Your task to perform on an android device: Clear the cart on amazon. Image 0: 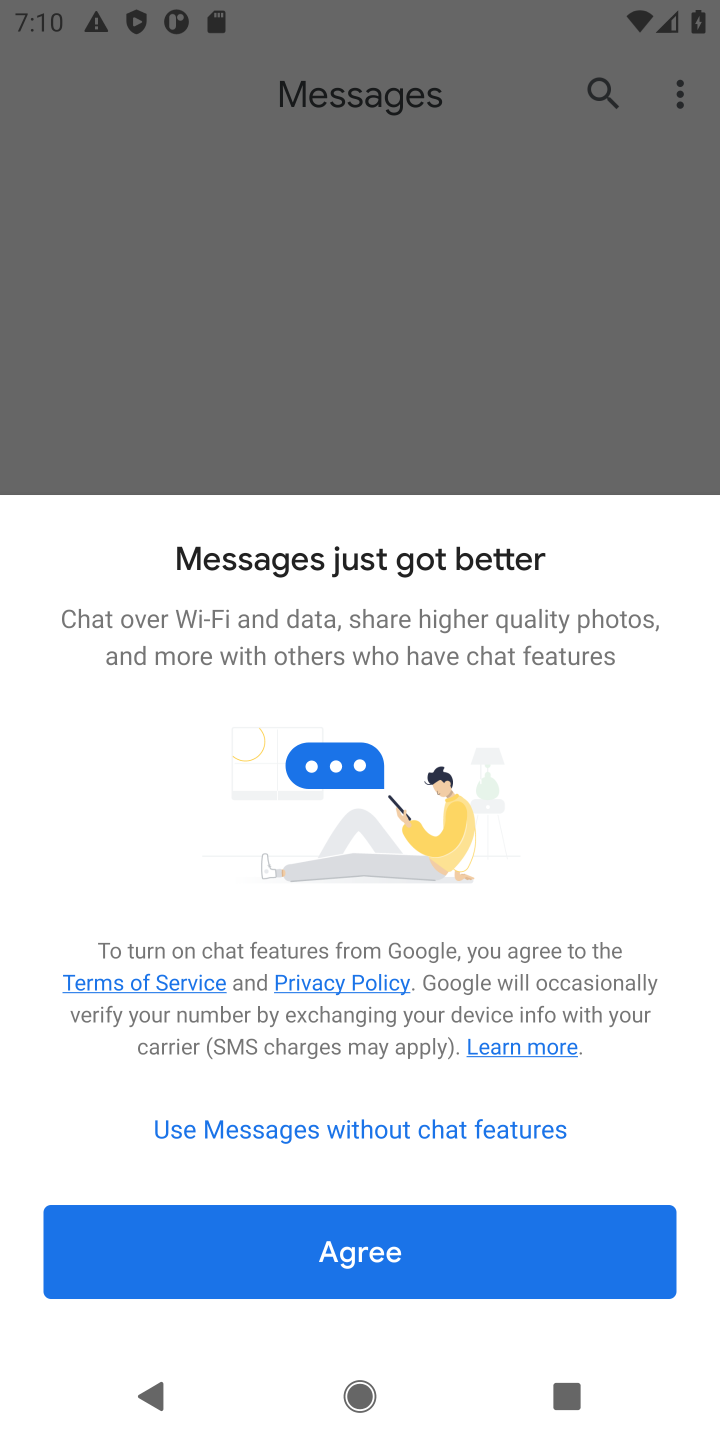
Step 0: press home button
Your task to perform on an android device: Clear the cart on amazon. Image 1: 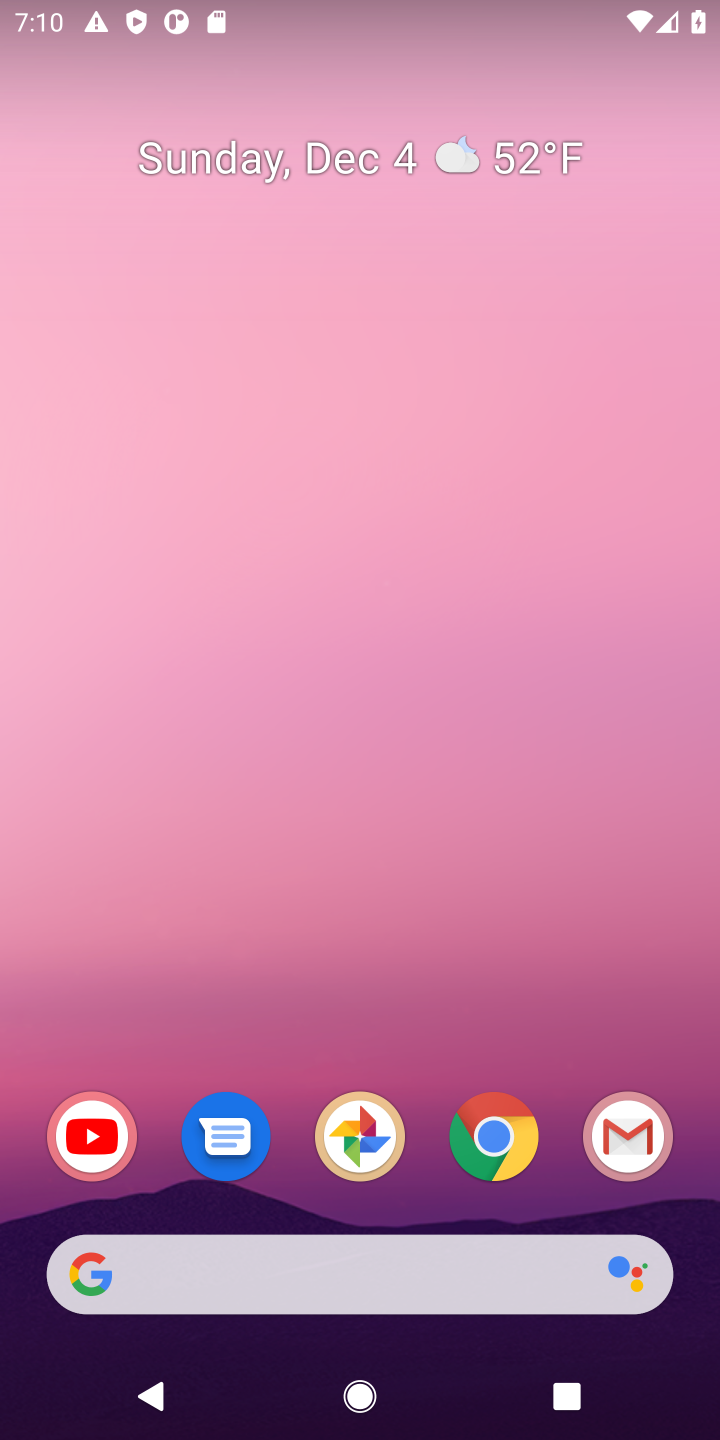
Step 1: click (492, 1143)
Your task to perform on an android device: Clear the cart on amazon. Image 2: 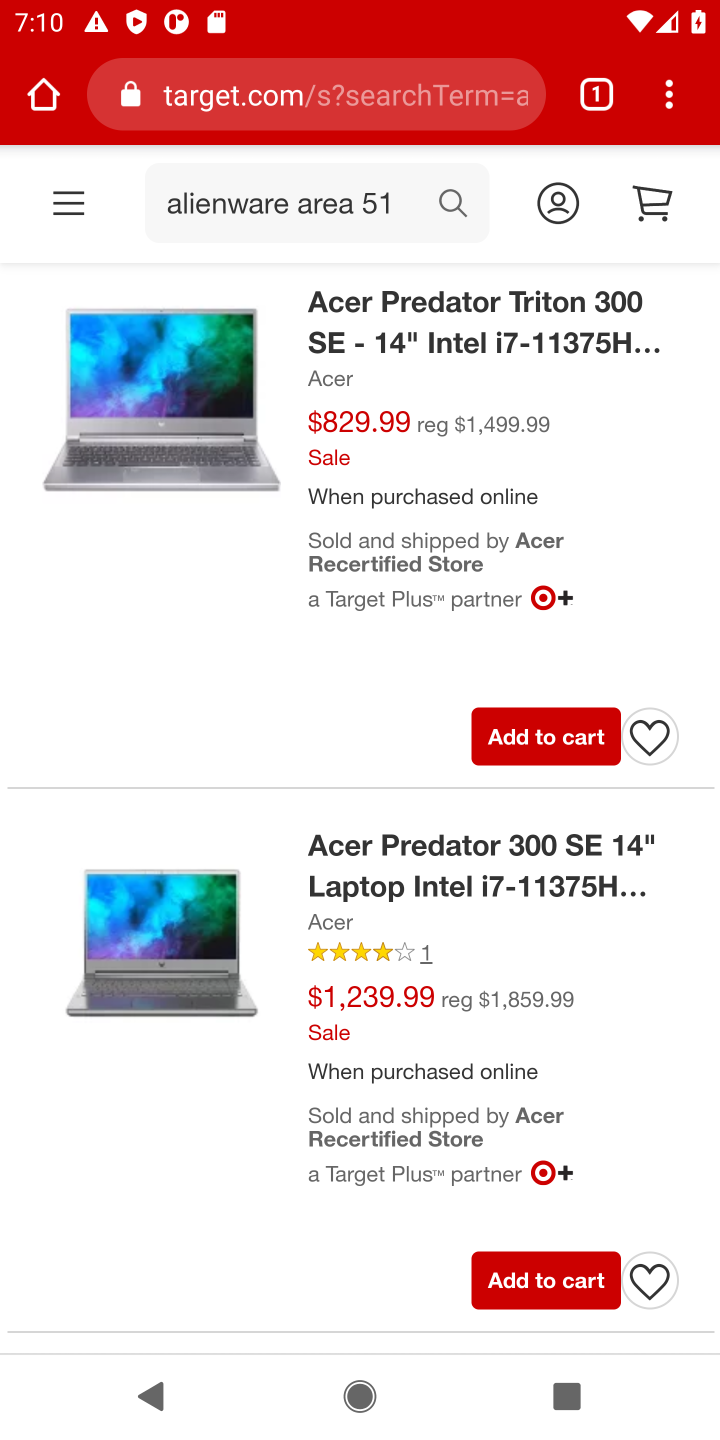
Step 2: click (247, 97)
Your task to perform on an android device: Clear the cart on amazon. Image 3: 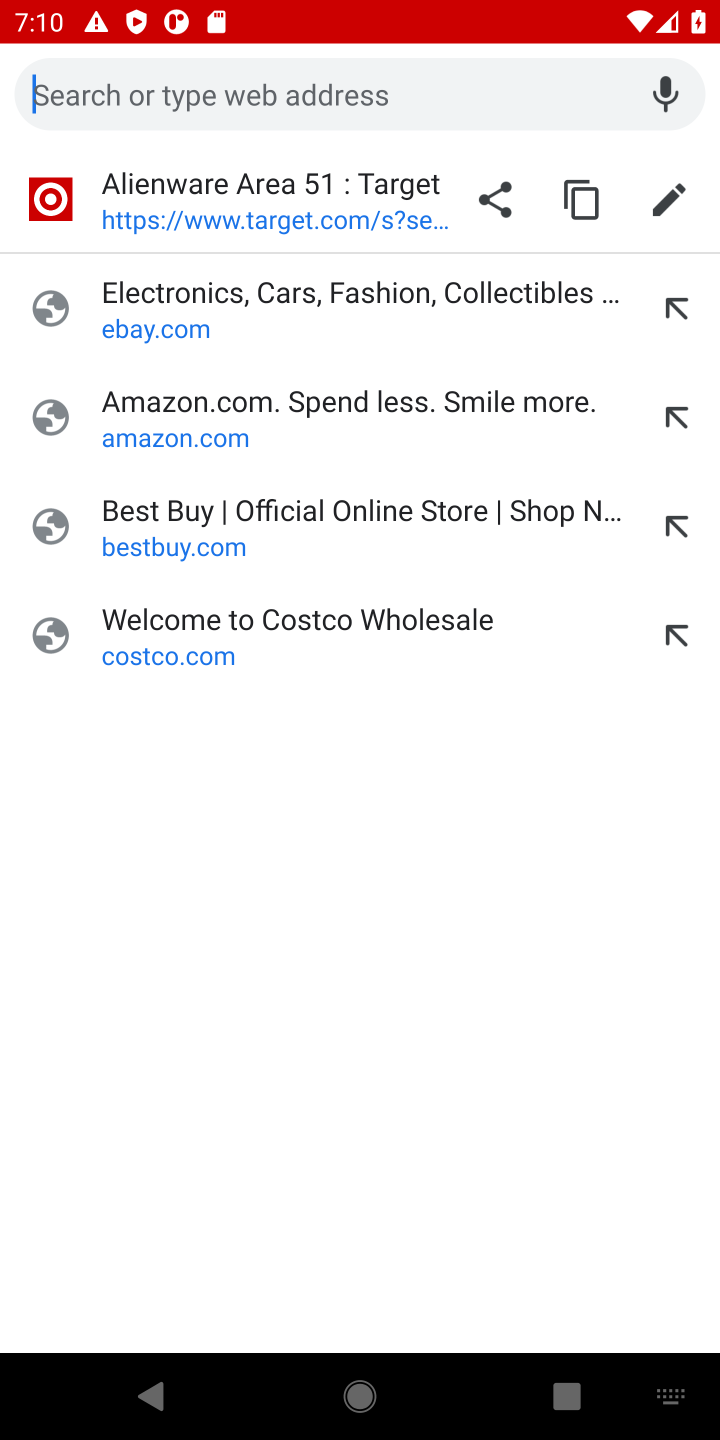
Step 3: click (122, 431)
Your task to perform on an android device: Clear the cart on amazon. Image 4: 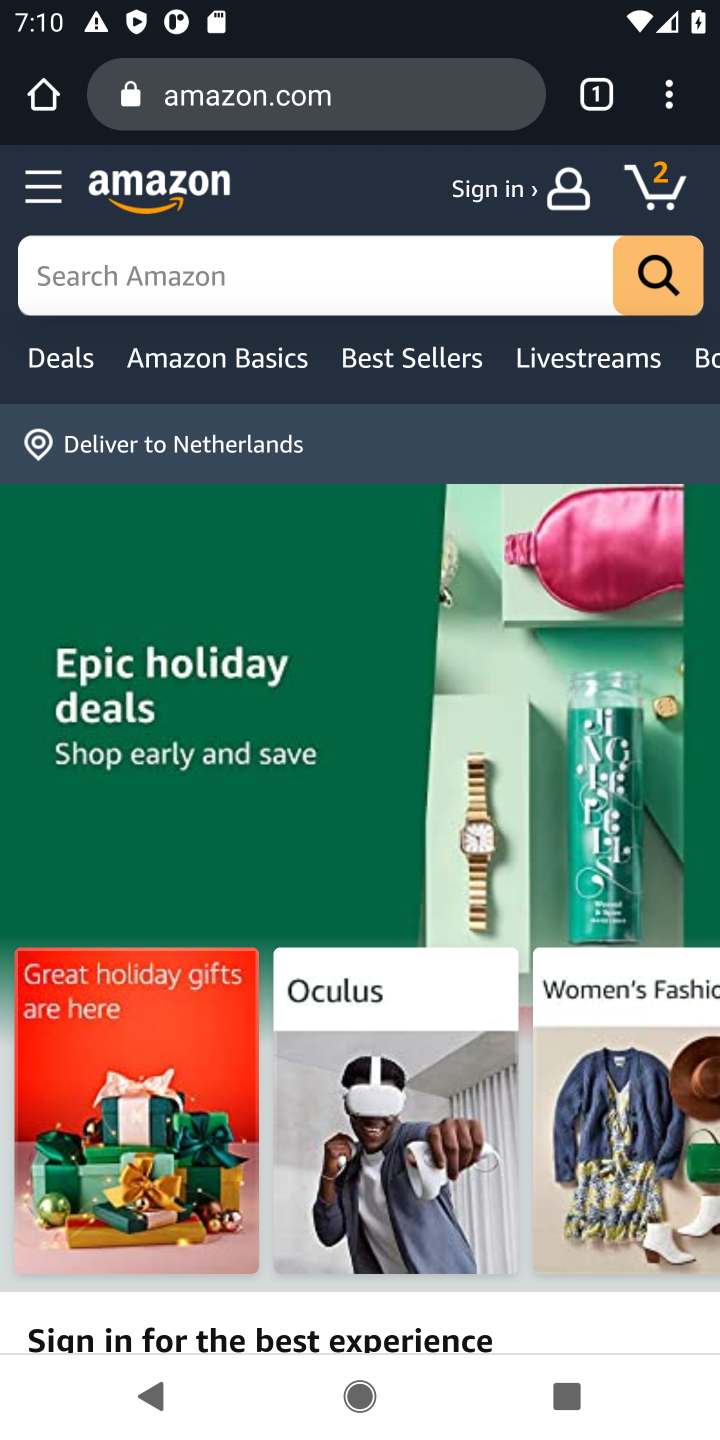
Step 4: click (659, 180)
Your task to perform on an android device: Clear the cart on amazon. Image 5: 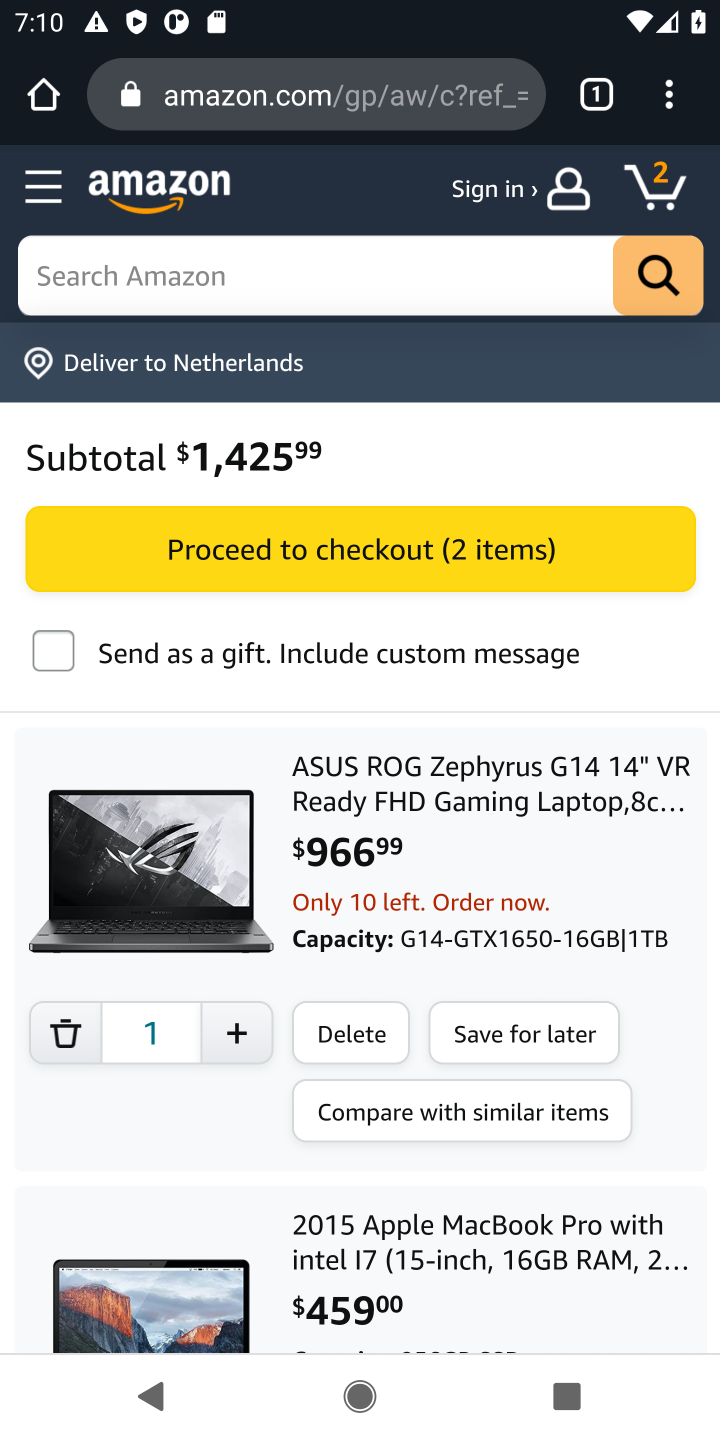
Step 5: click (349, 1037)
Your task to perform on an android device: Clear the cart on amazon. Image 6: 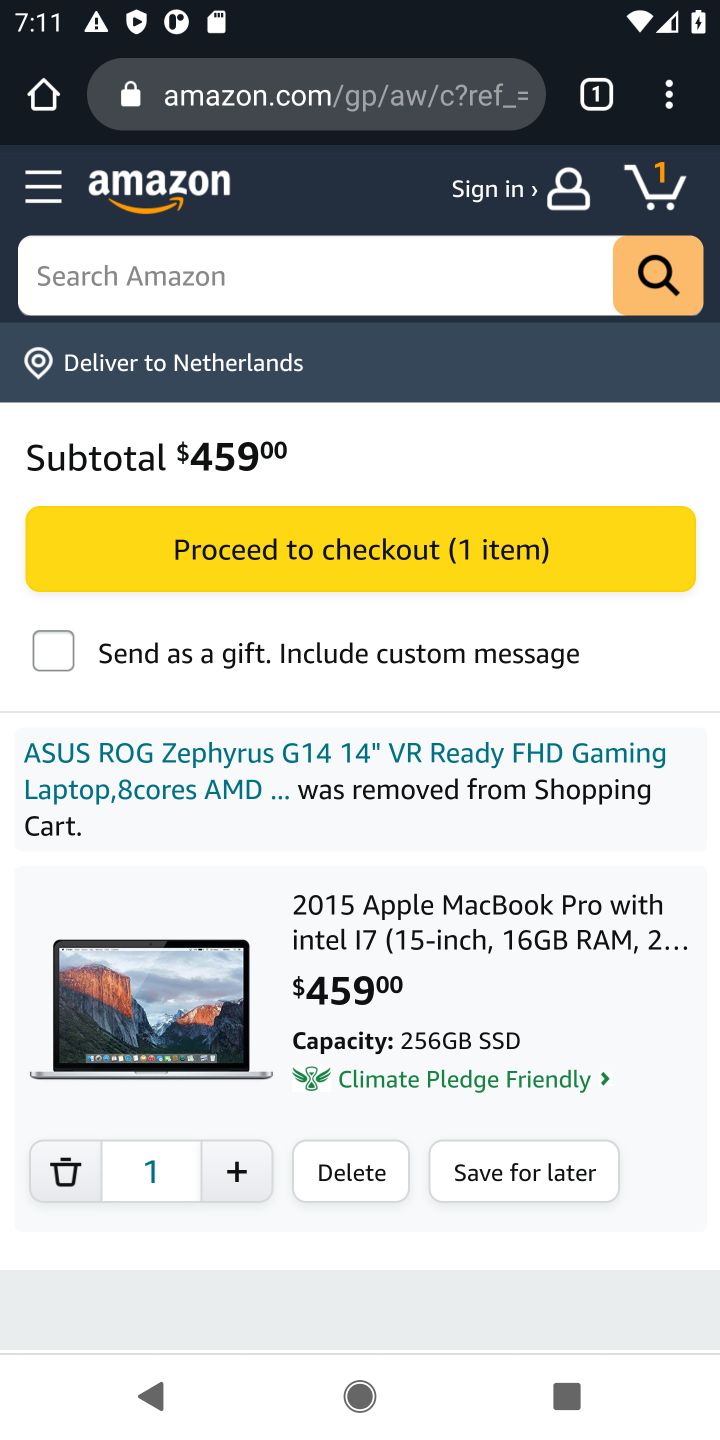
Step 6: click (357, 1161)
Your task to perform on an android device: Clear the cart on amazon. Image 7: 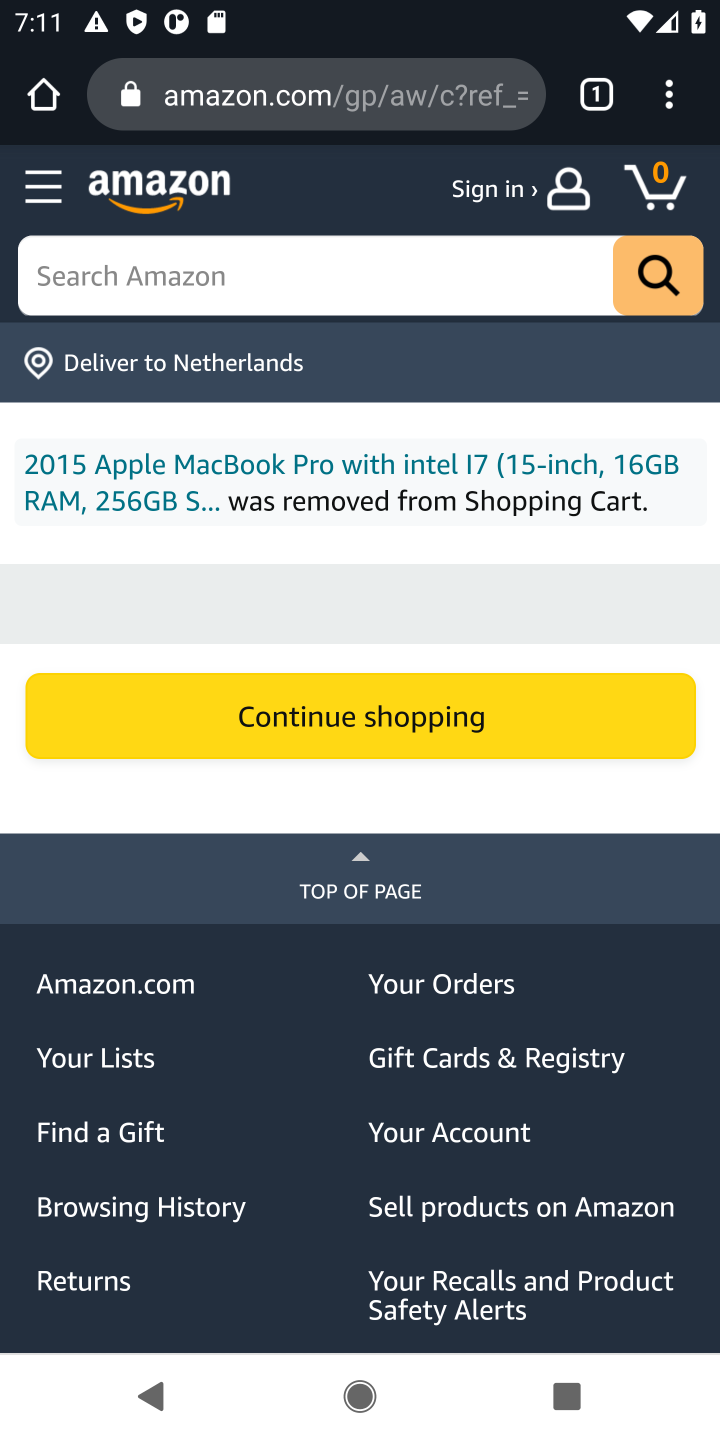
Step 7: task complete